Your task to perform on an android device: allow notifications from all sites in the chrome app Image 0: 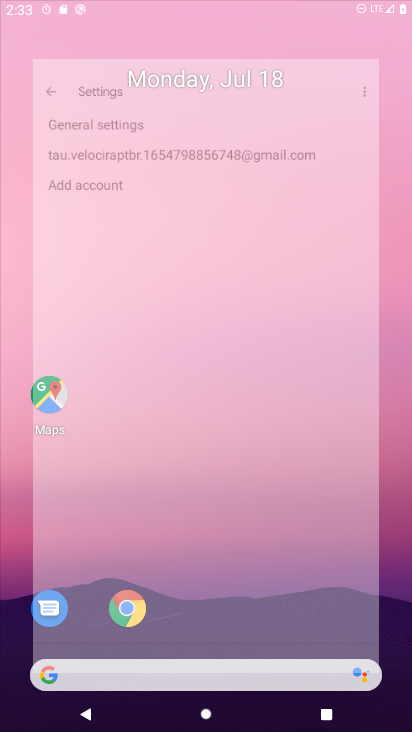
Step 0: click (407, 660)
Your task to perform on an android device: allow notifications from all sites in the chrome app Image 1: 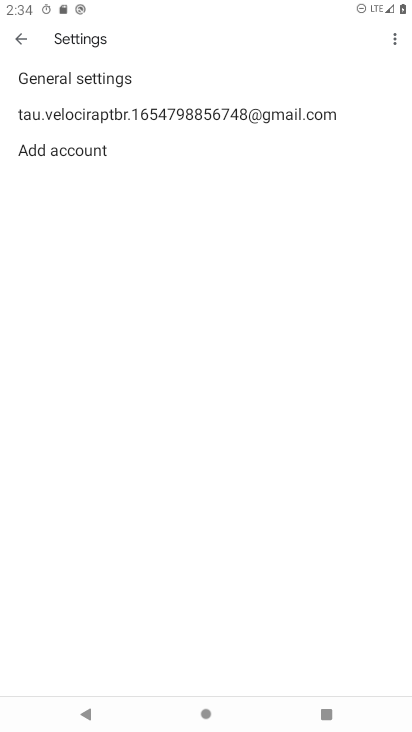
Step 1: press home button
Your task to perform on an android device: allow notifications from all sites in the chrome app Image 2: 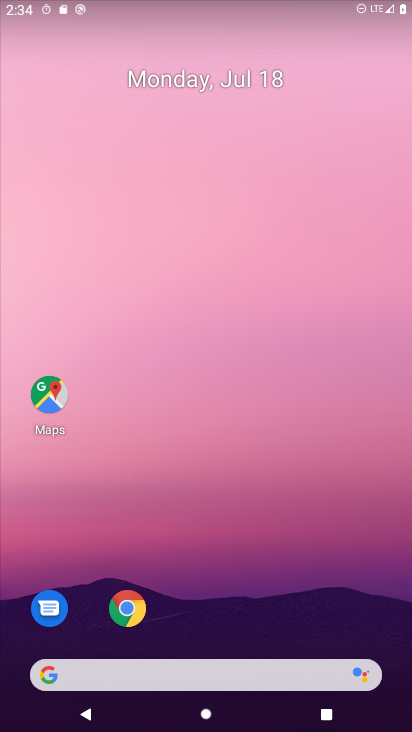
Step 2: click (125, 618)
Your task to perform on an android device: allow notifications from all sites in the chrome app Image 3: 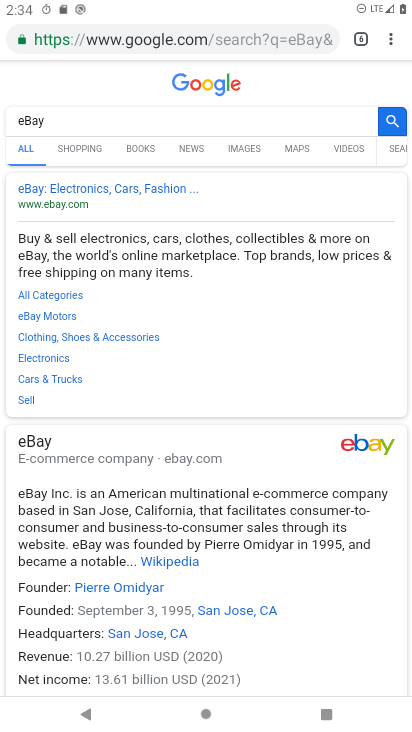
Step 3: click (391, 41)
Your task to perform on an android device: allow notifications from all sites in the chrome app Image 4: 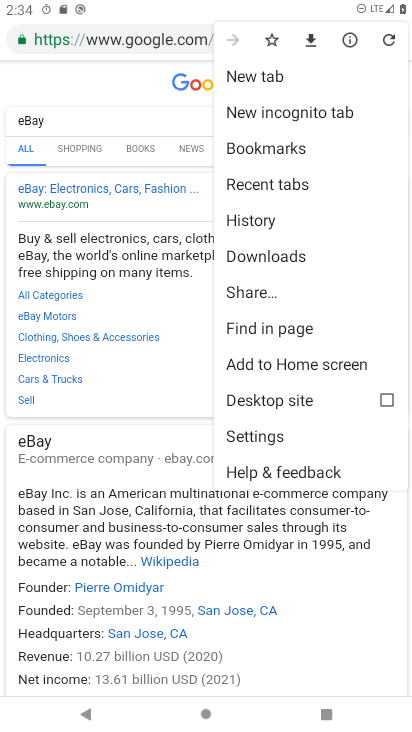
Step 4: click (261, 434)
Your task to perform on an android device: allow notifications from all sites in the chrome app Image 5: 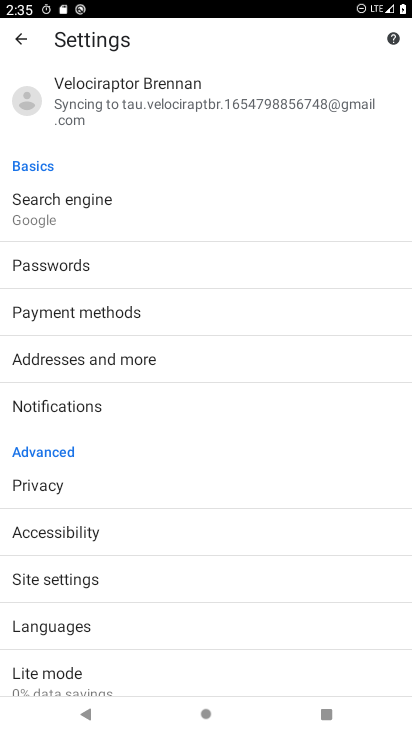
Step 5: click (44, 578)
Your task to perform on an android device: allow notifications from all sites in the chrome app Image 6: 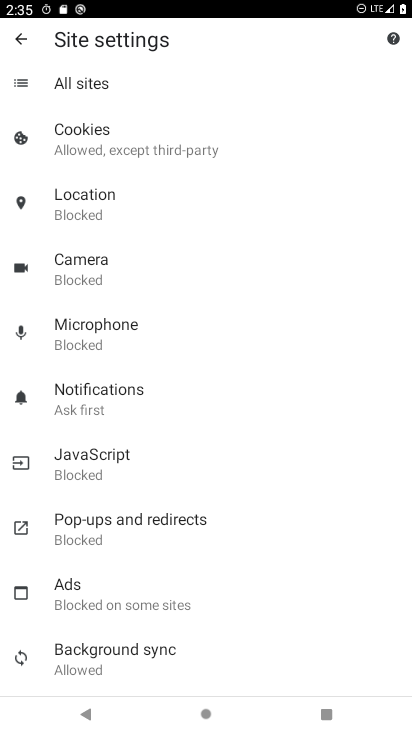
Step 6: click (82, 402)
Your task to perform on an android device: allow notifications from all sites in the chrome app Image 7: 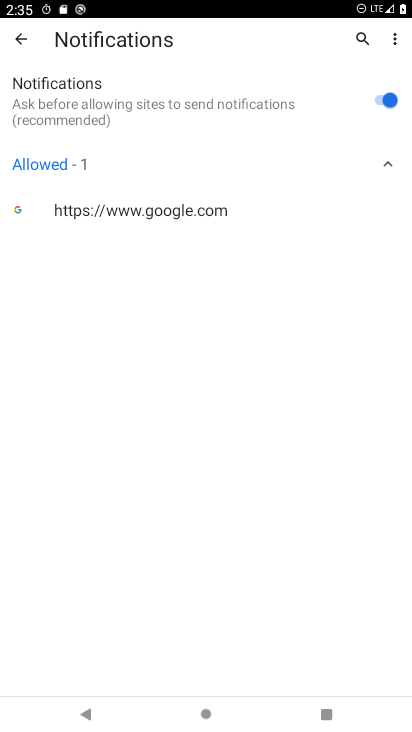
Step 7: task complete